Your task to perform on an android device: See recent photos Image 0: 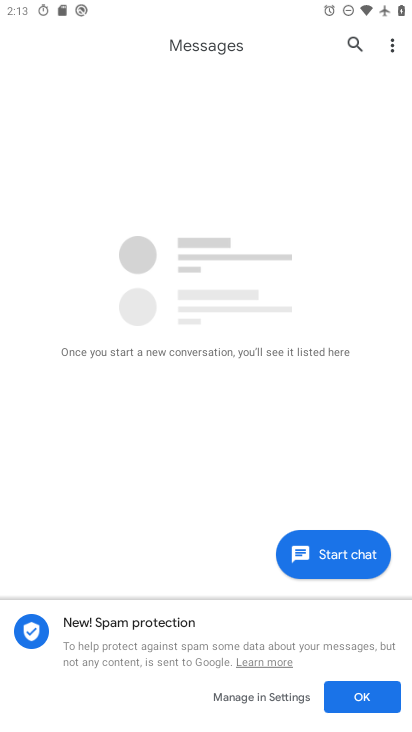
Step 0: press home button
Your task to perform on an android device: See recent photos Image 1: 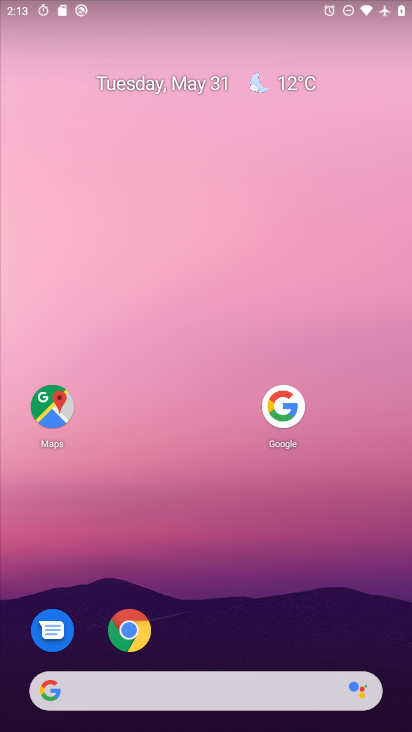
Step 1: drag from (116, 696) to (303, 34)
Your task to perform on an android device: See recent photos Image 2: 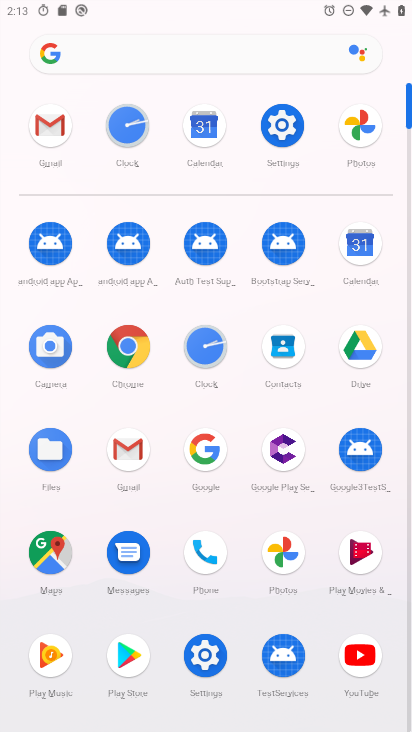
Step 2: click (278, 555)
Your task to perform on an android device: See recent photos Image 3: 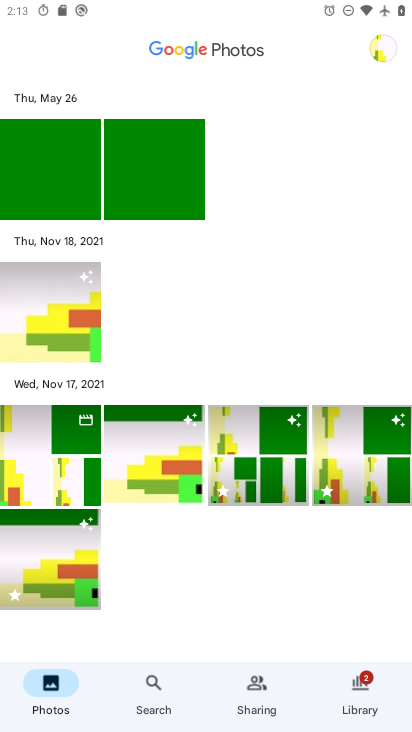
Step 3: click (160, 701)
Your task to perform on an android device: See recent photos Image 4: 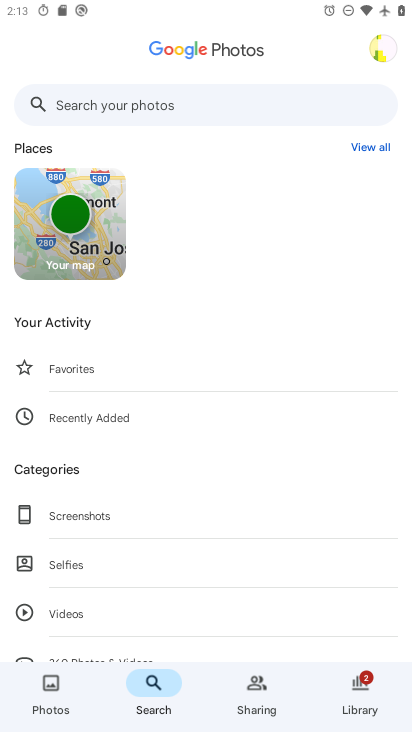
Step 4: click (92, 420)
Your task to perform on an android device: See recent photos Image 5: 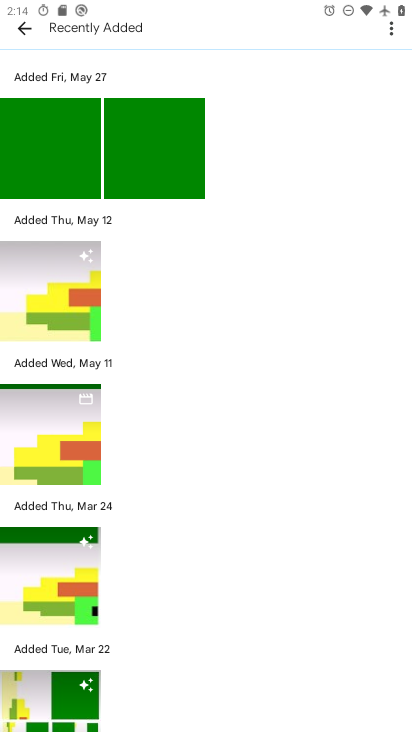
Step 5: task complete